Your task to perform on an android device: turn off priority inbox in the gmail app Image 0: 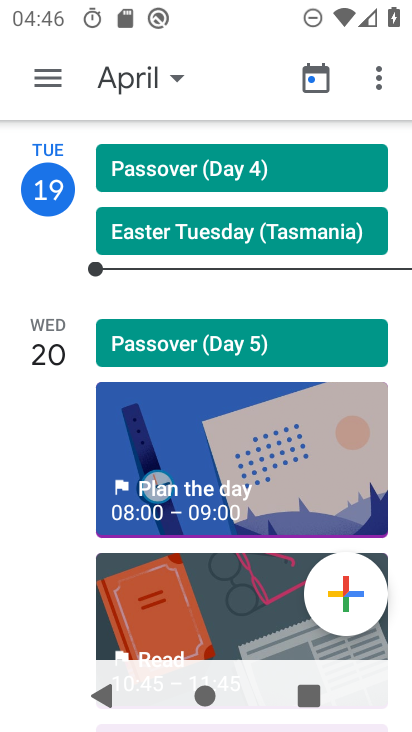
Step 0: press home button
Your task to perform on an android device: turn off priority inbox in the gmail app Image 1: 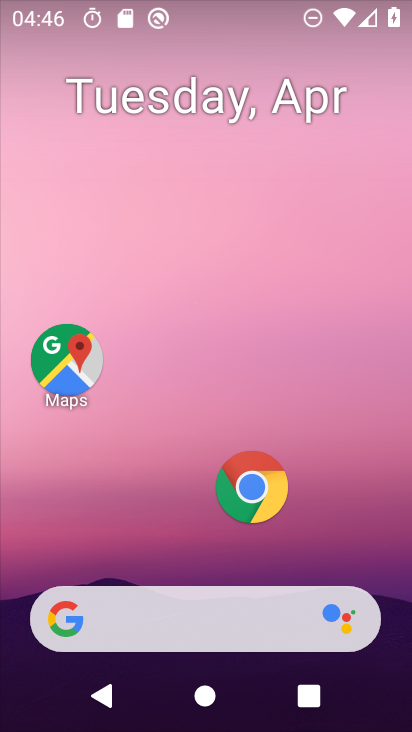
Step 1: drag from (154, 452) to (236, 20)
Your task to perform on an android device: turn off priority inbox in the gmail app Image 2: 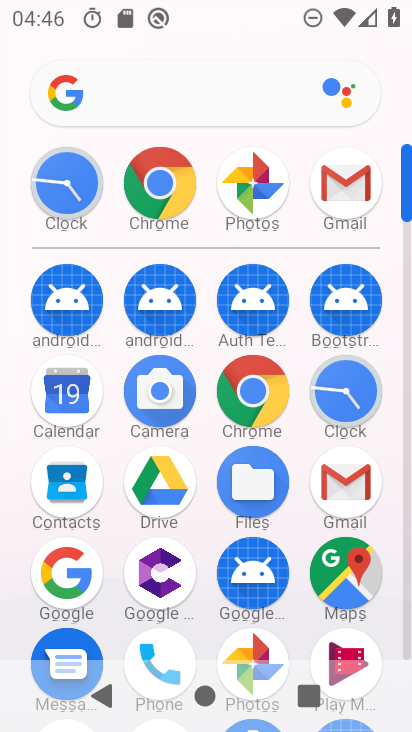
Step 2: click (347, 178)
Your task to perform on an android device: turn off priority inbox in the gmail app Image 3: 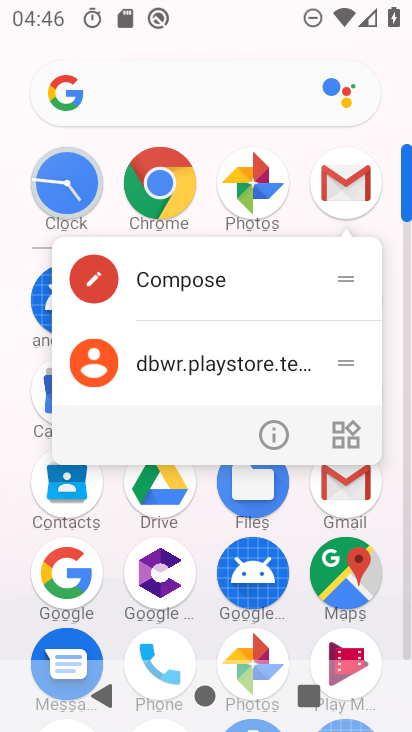
Step 3: click (350, 185)
Your task to perform on an android device: turn off priority inbox in the gmail app Image 4: 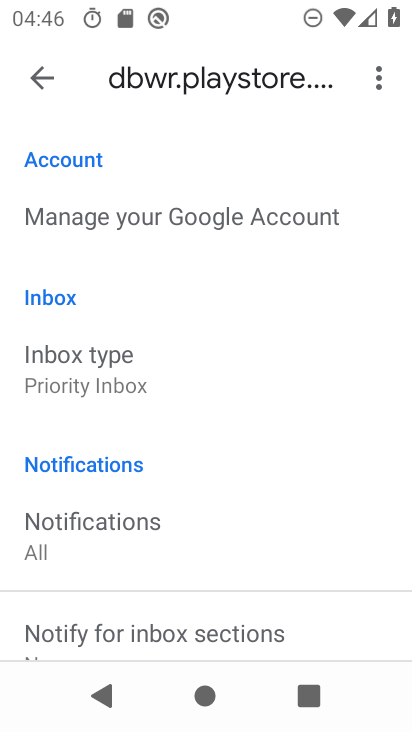
Step 4: click (99, 362)
Your task to perform on an android device: turn off priority inbox in the gmail app Image 5: 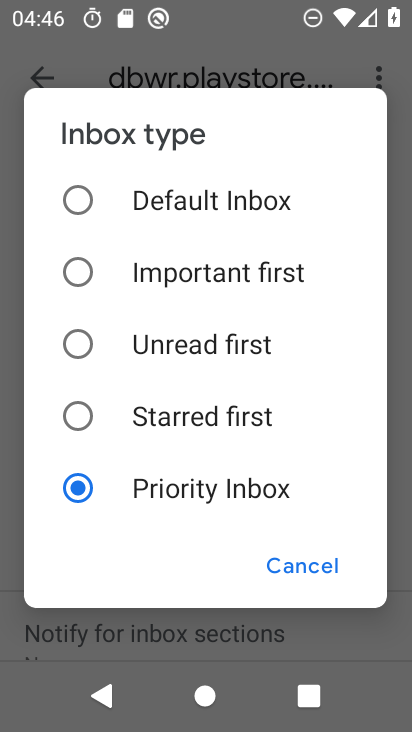
Step 5: click (81, 198)
Your task to perform on an android device: turn off priority inbox in the gmail app Image 6: 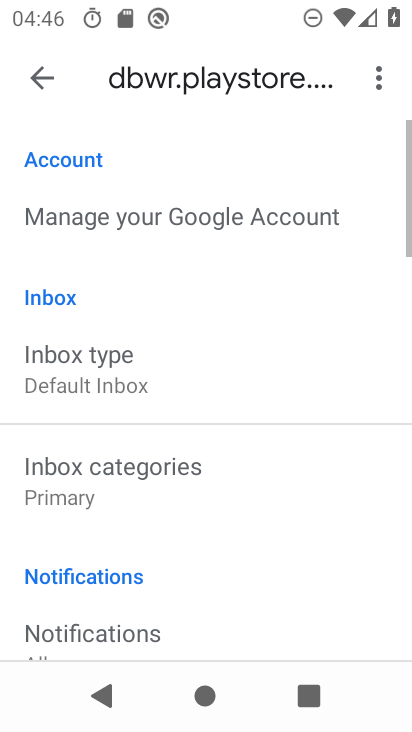
Step 6: task complete